Your task to perform on an android device: Open CNN.com Image 0: 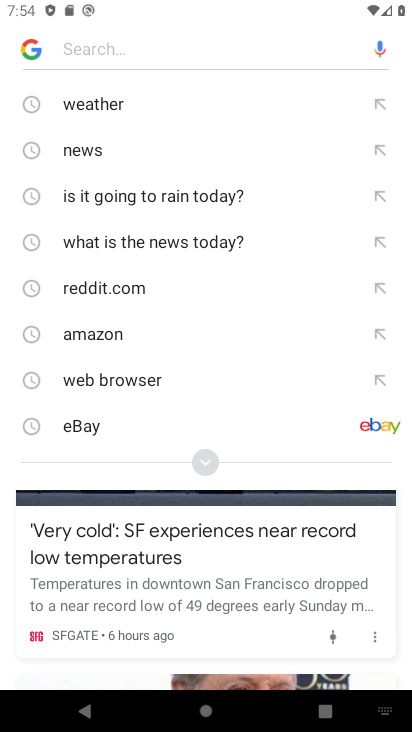
Step 0: press back button
Your task to perform on an android device: Open CNN.com Image 1: 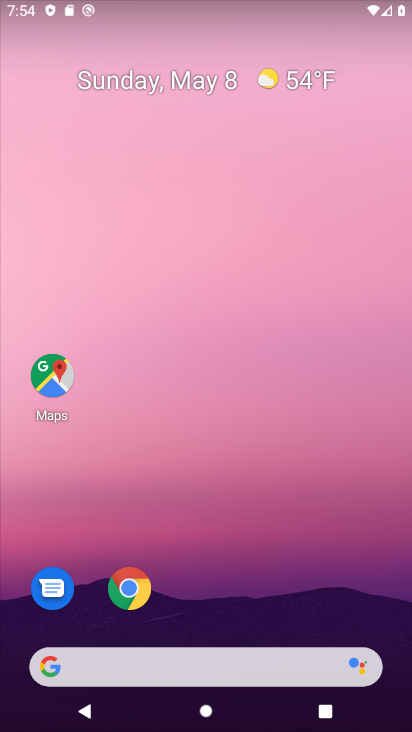
Step 1: click (137, 583)
Your task to perform on an android device: Open CNN.com Image 2: 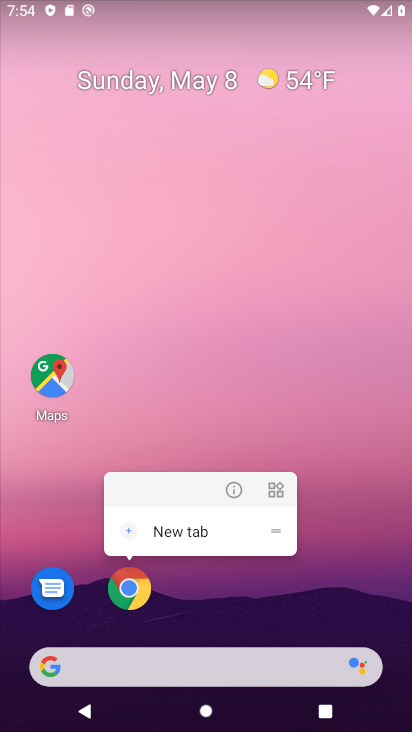
Step 2: click (235, 489)
Your task to perform on an android device: Open CNN.com Image 3: 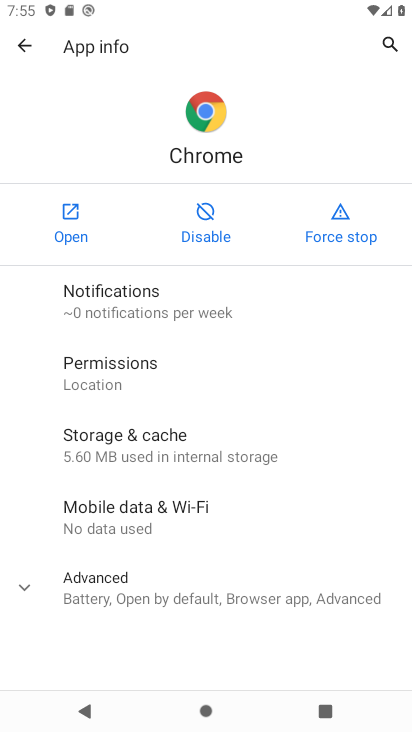
Step 3: click (63, 209)
Your task to perform on an android device: Open CNN.com Image 4: 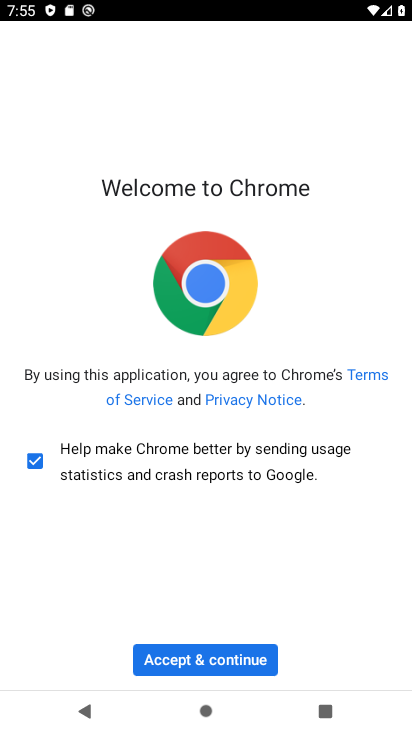
Step 4: click (187, 652)
Your task to perform on an android device: Open CNN.com Image 5: 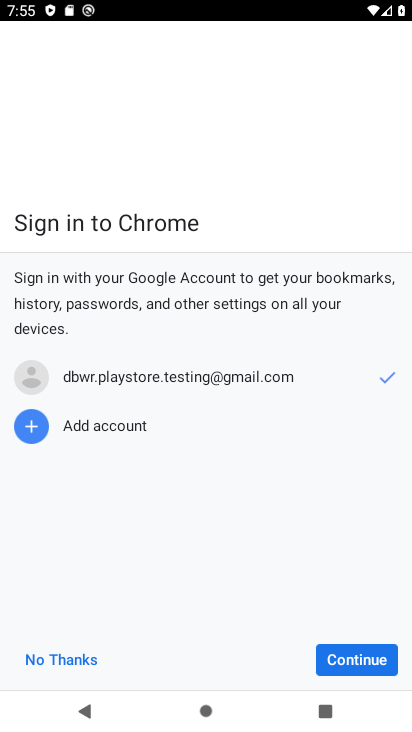
Step 5: click (49, 656)
Your task to perform on an android device: Open CNN.com Image 6: 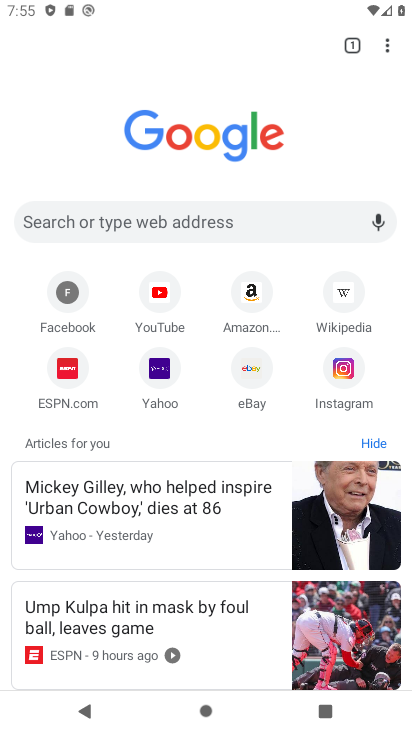
Step 6: click (139, 213)
Your task to perform on an android device: Open CNN.com Image 7: 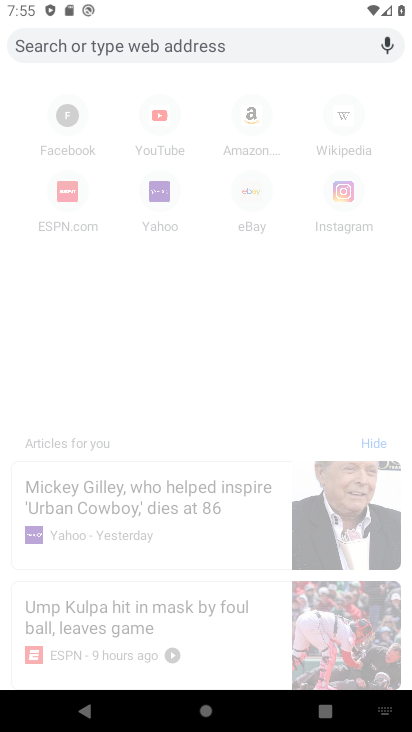
Step 7: type "CNN.com"
Your task to perform on an android device: Open CNN.com Image 8: 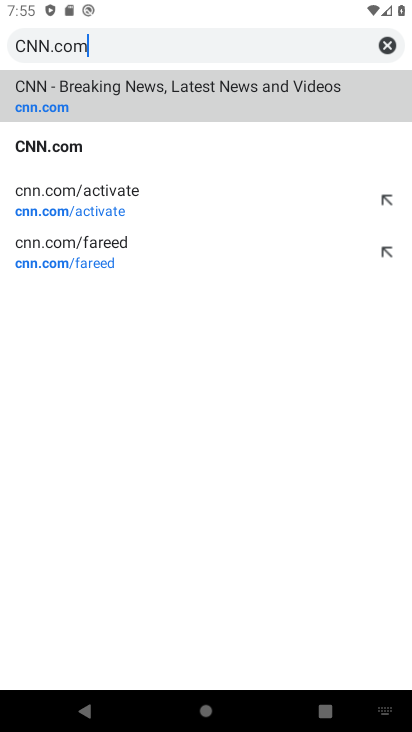
Step 8: type ""
Your task to perform on an android device: Open CNN.com Image 9: 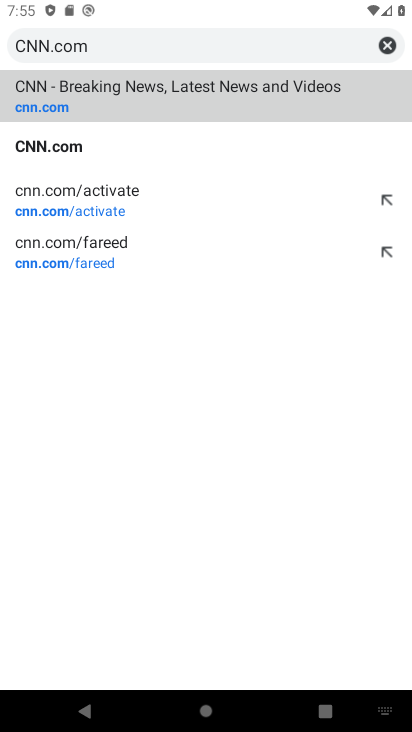
Step 9: click (58, 157)
Your task to perform on an android device: Open CNN.com Image 10: 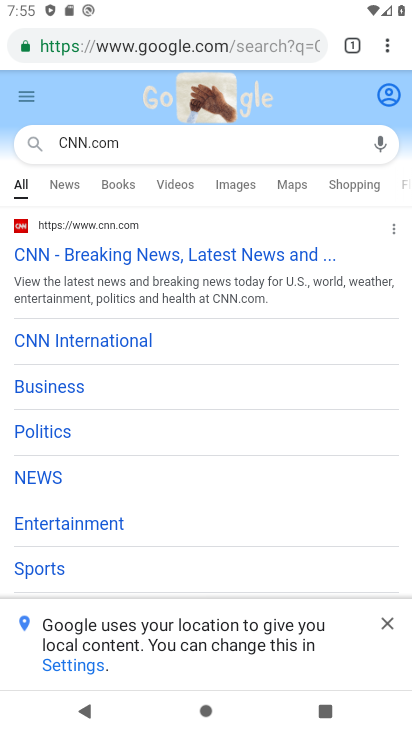
Step 10: task complete